Your task to perform on an android device: allow cookies in the chrome app Image 0: 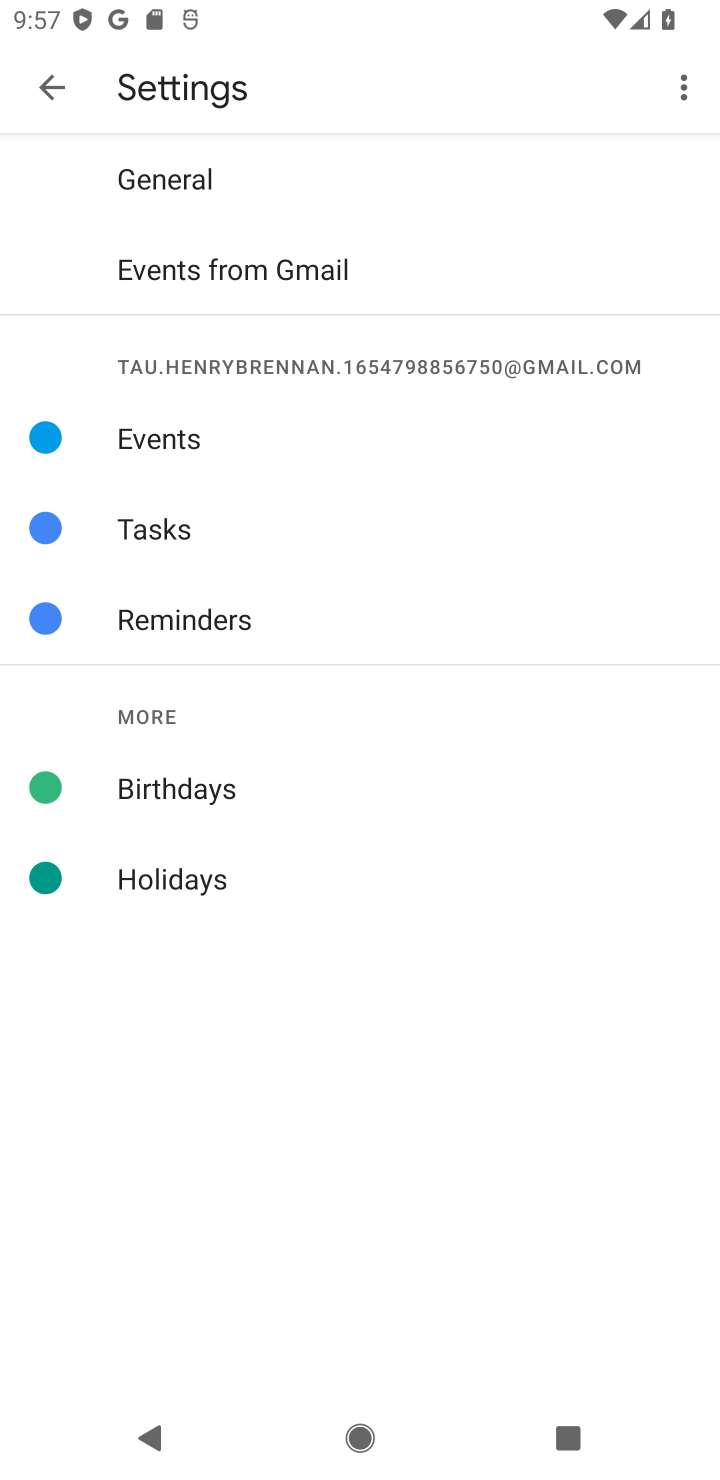
Step 0: press home button
Your task to perform on an android device: allow cookies in the chrome app Image 1: 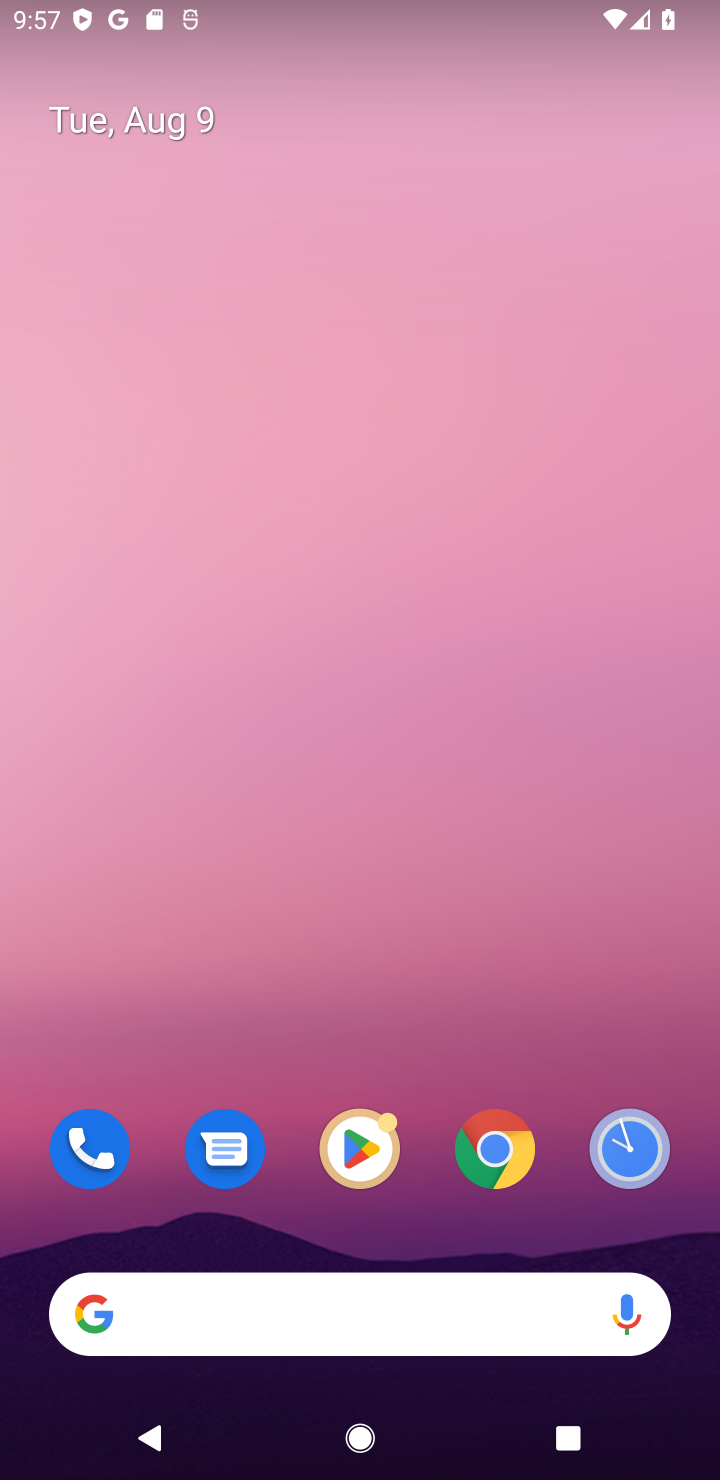
Step 1: click (496, 1131)
Your task to perform on an android device: allow cookies in the chrome app Image 2: 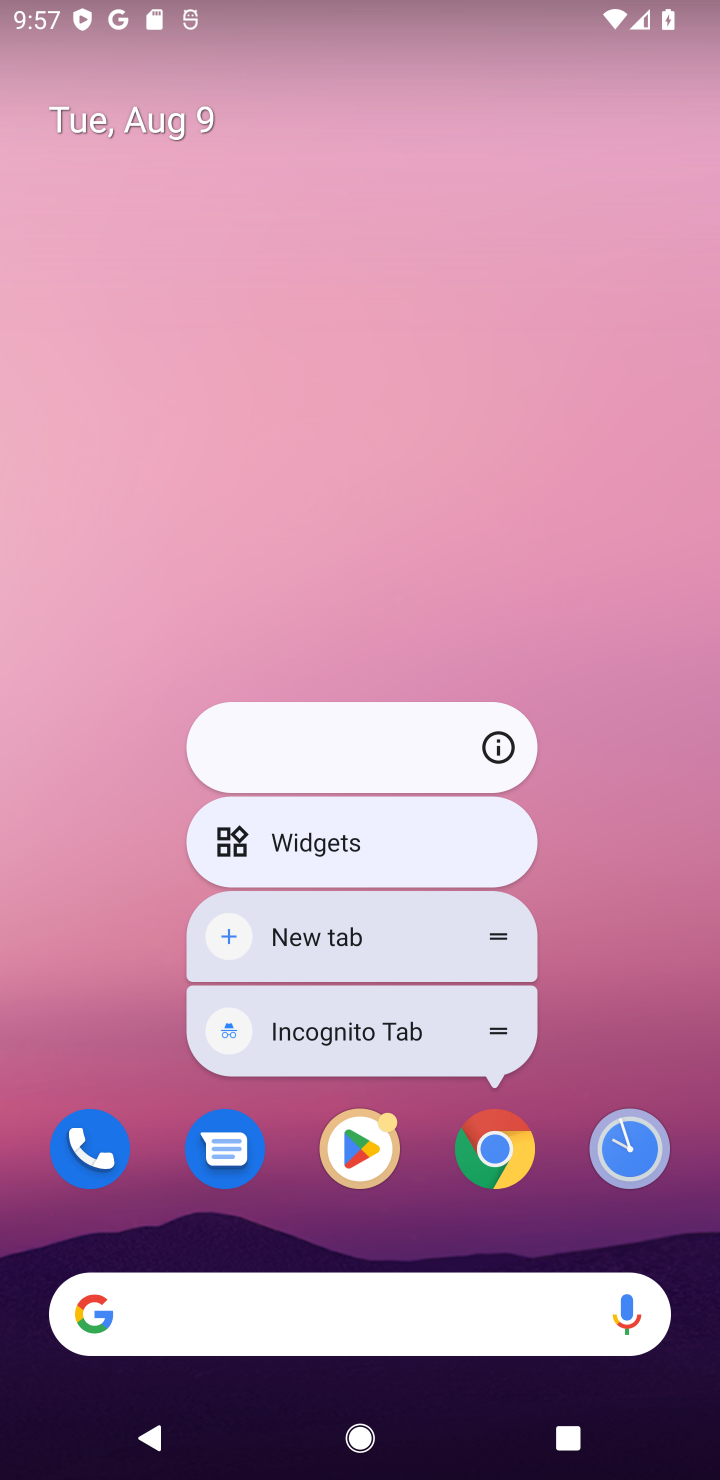
Step 2: click (496, 1131)
Your task to perform on an android device: allow cookies in the chrome app Image 3: 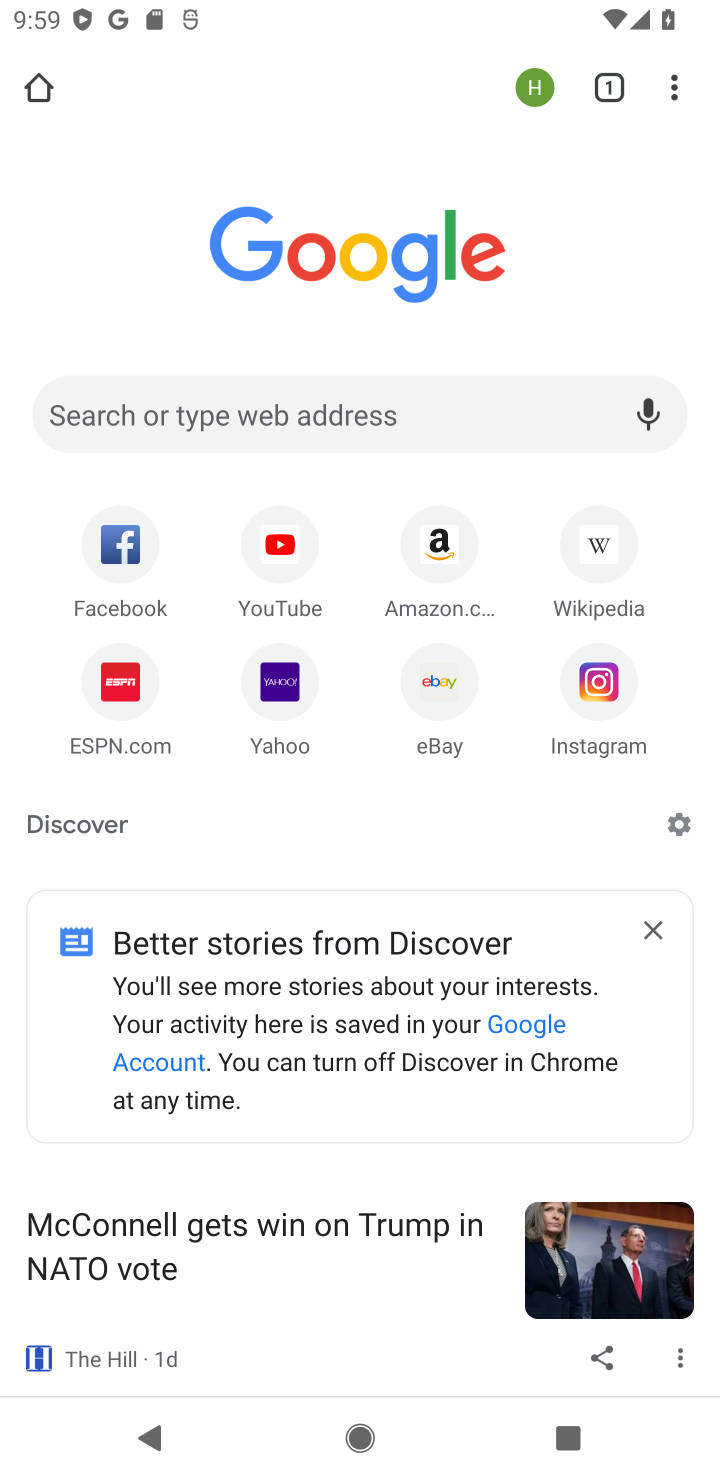
Step 3: click (684, 94)
Your task to perform on an android device: allow cookies in the chrome app Image 4: 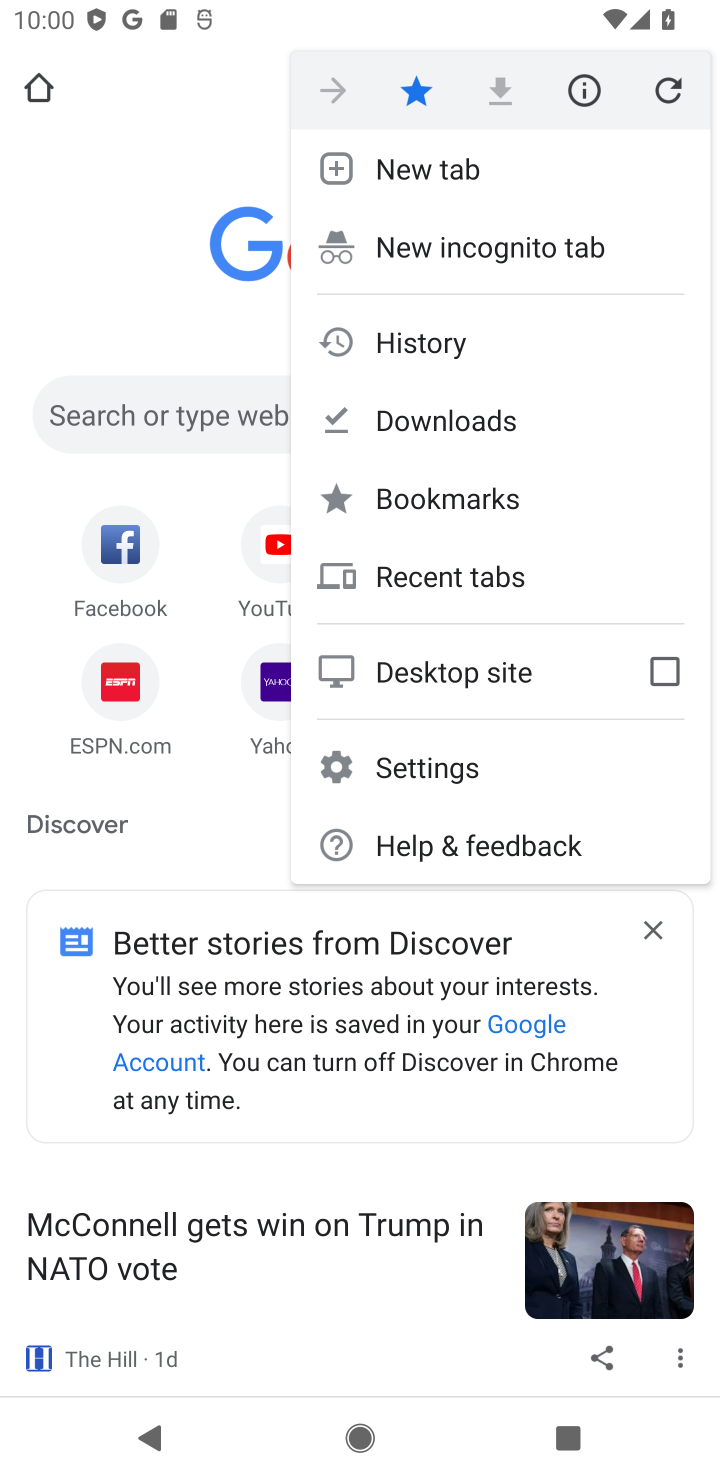
Step 4: click (438, 761)
Your task to perform on an android device: allow cookies in the chrome app Image 5: 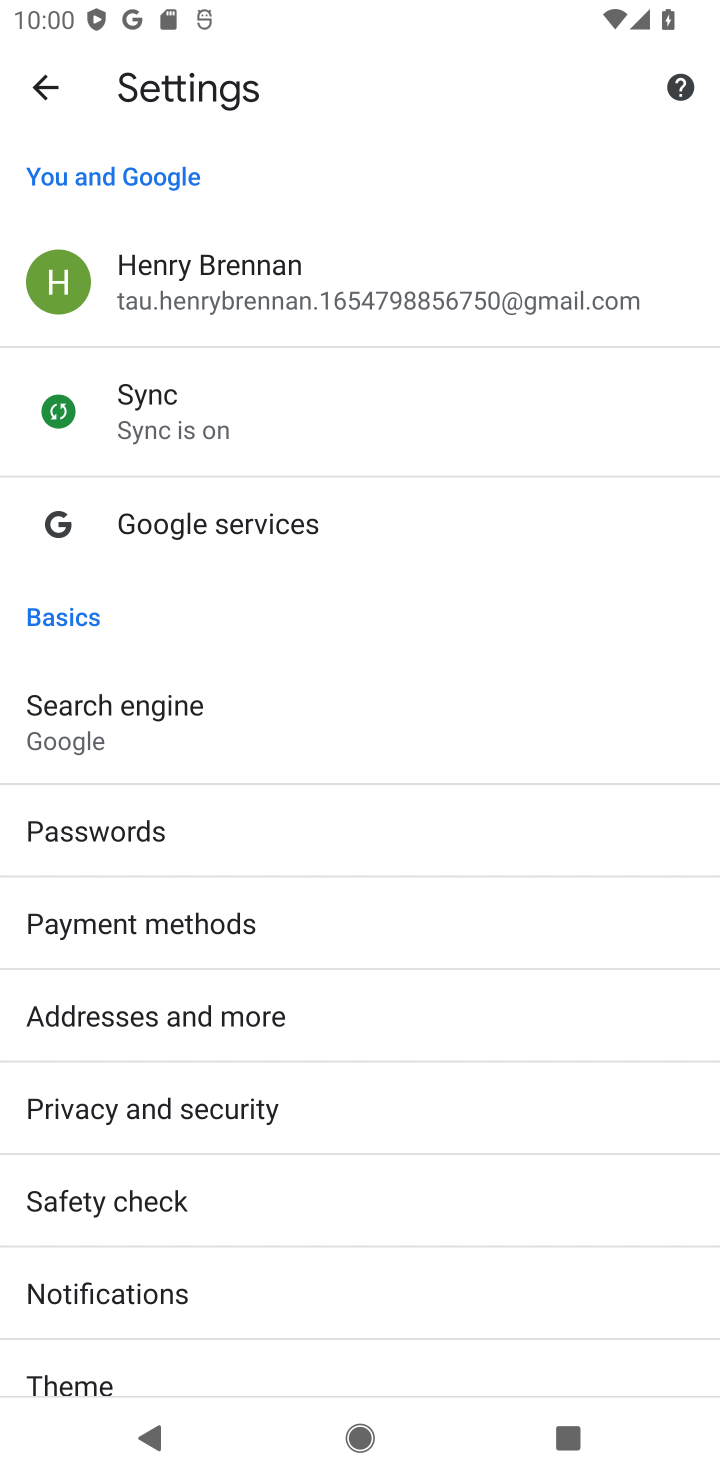
Step 5: drag from (352, 1193) to (254, 674)
Your task to perform on an android device: allow cookies in the chrome app Image 6: 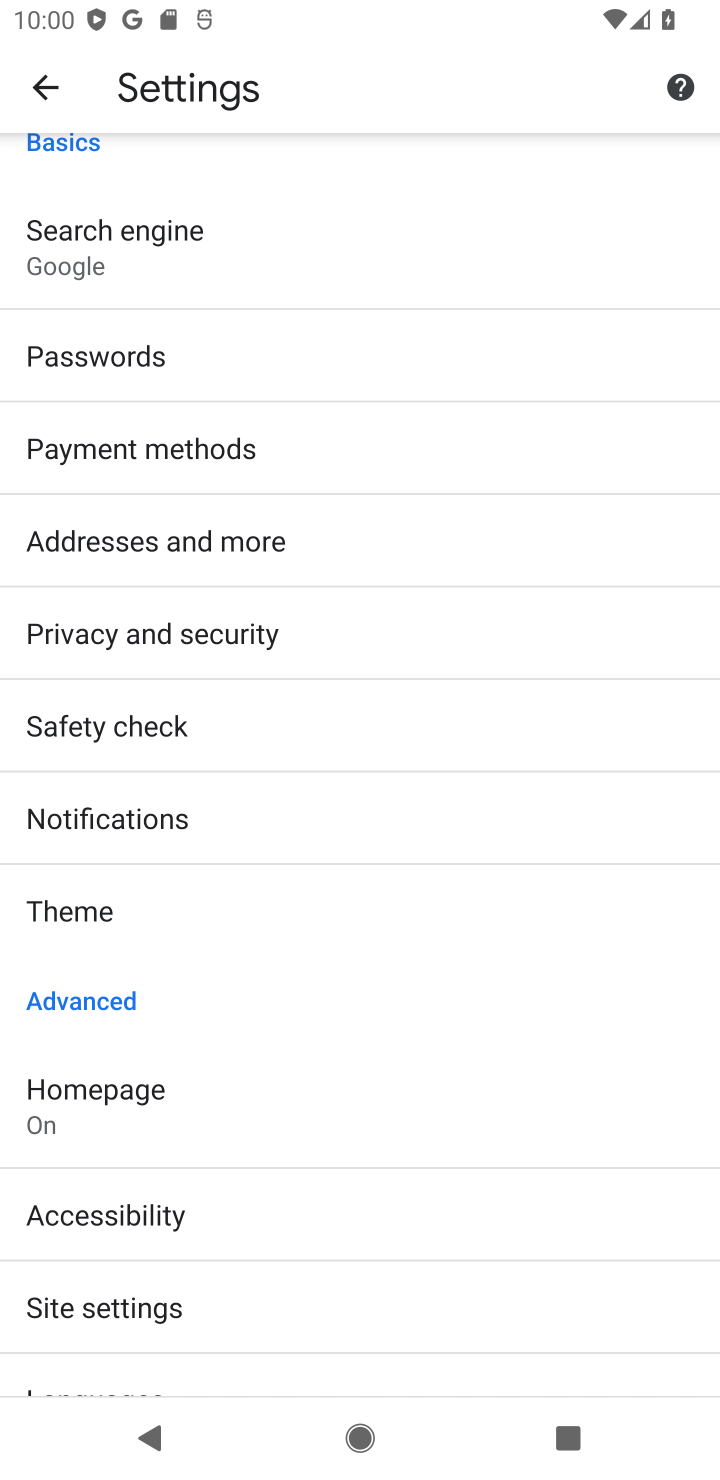
Step 6: click (97, 1304)
Your task to perform on an android device: allow cookies in the chrome app Image 7: 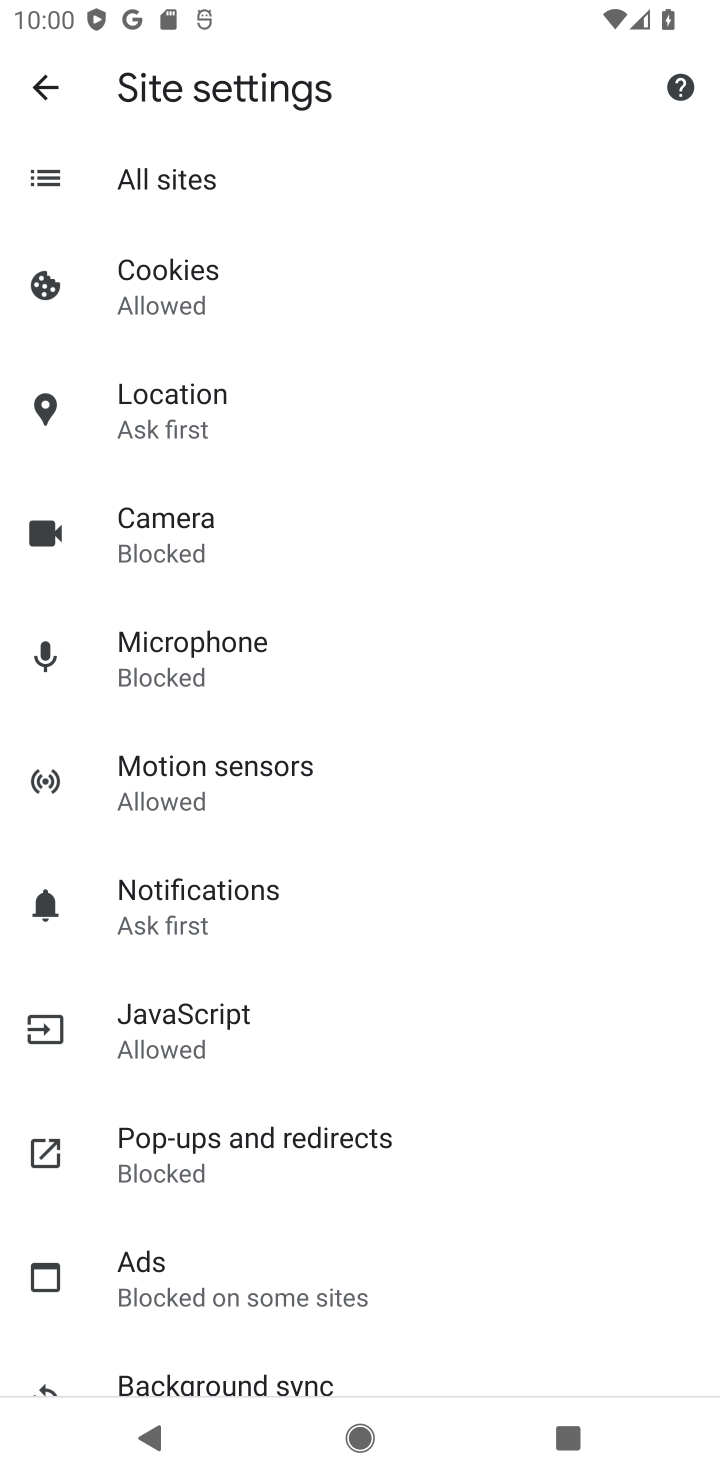
Step 7: click (343, 279)
Your task to perform on an android device: allow cookies in the chrome app Image 8: 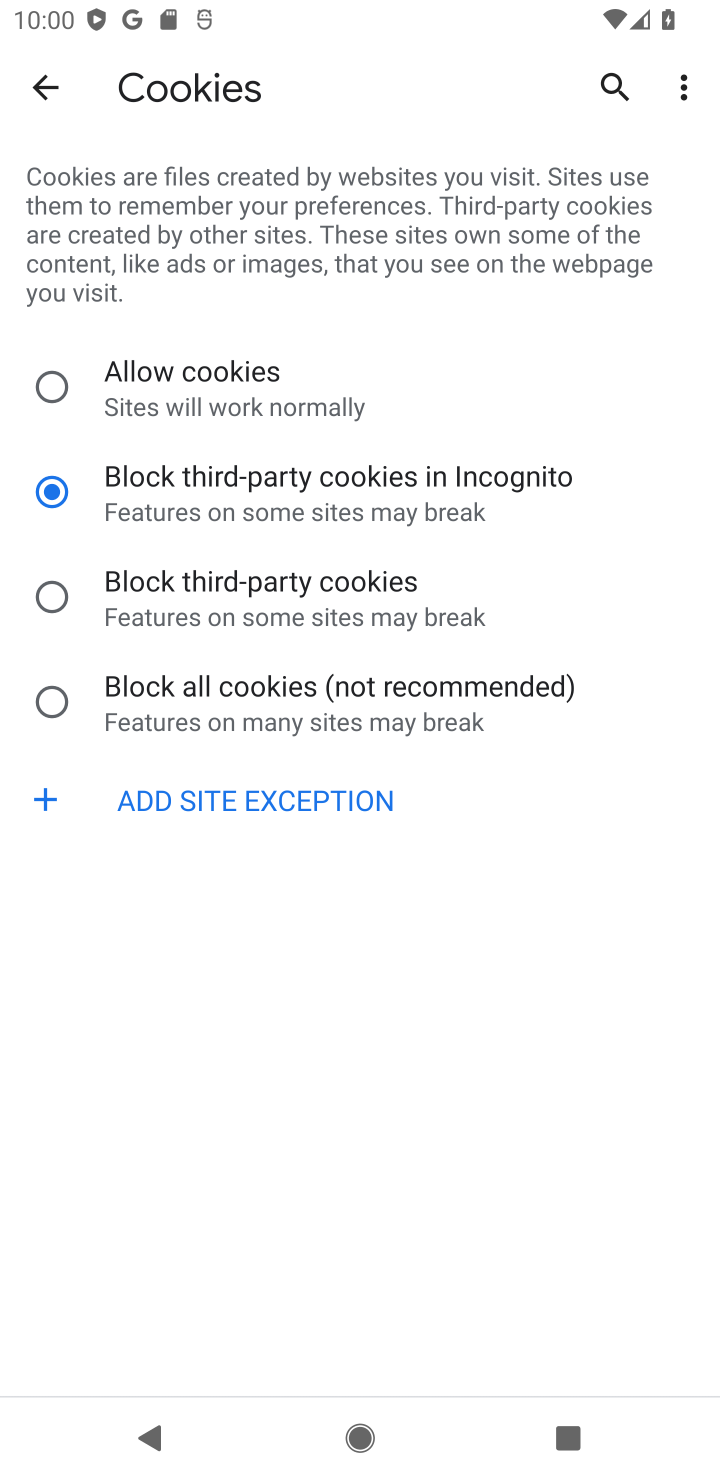
Step 8: task complete